Your task to perform on an android device: Show me popular videos on Youtube Image 0: 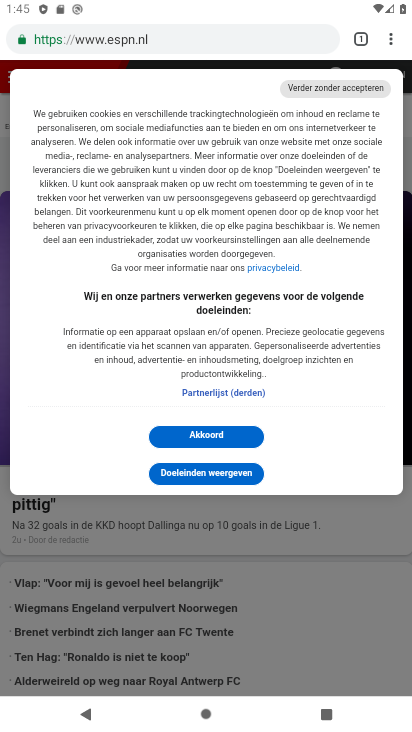
Step 0: press home button
Your task to perform on an android device: Show me popular videos on Youtube Image 1: 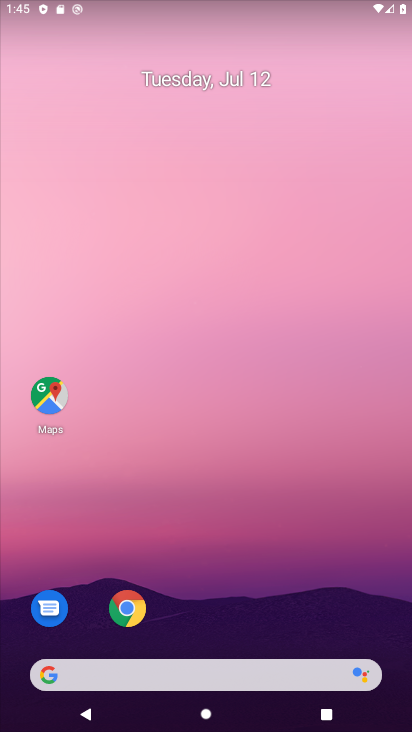
Step 1: drag from (297, 566) to (236, 106)
Your task to perform on an android device: Show me popular videos on Youtube Image 2: 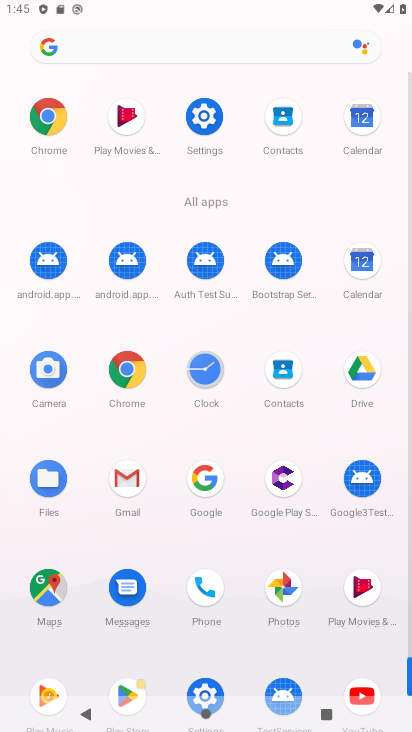
Step 2: click (366, 686)
Your task to perform on an android device: Show me popular videos on Youtube Image 3: 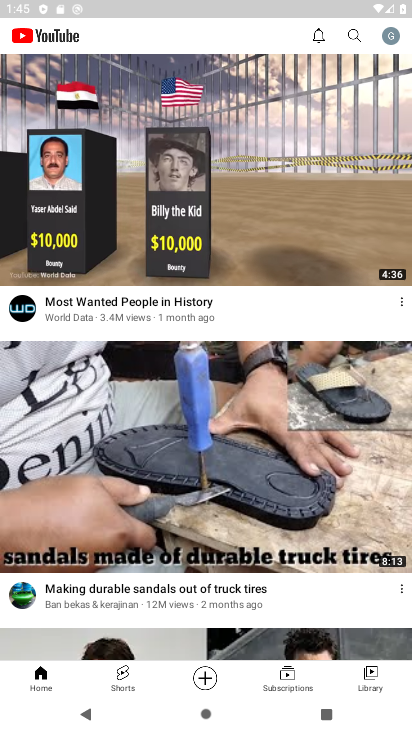
Step 3: click (288, 683)
Your task to perform on an android device: Show me popular videos on Youtube Image 4: 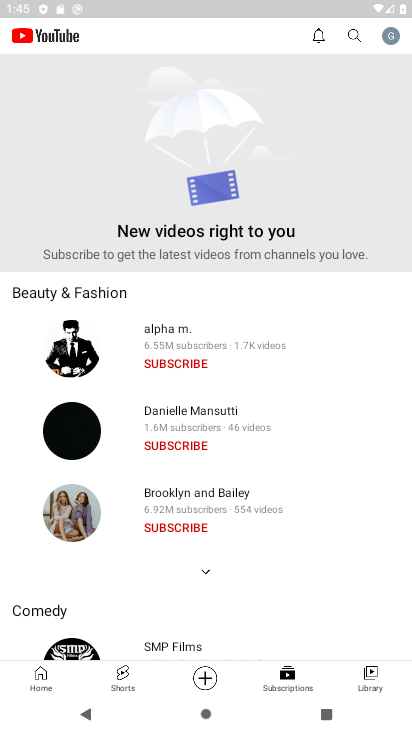
Step 4: click (359, 686)
Your task to perform on an android device: Show me popular videos on Youtube Image 5: 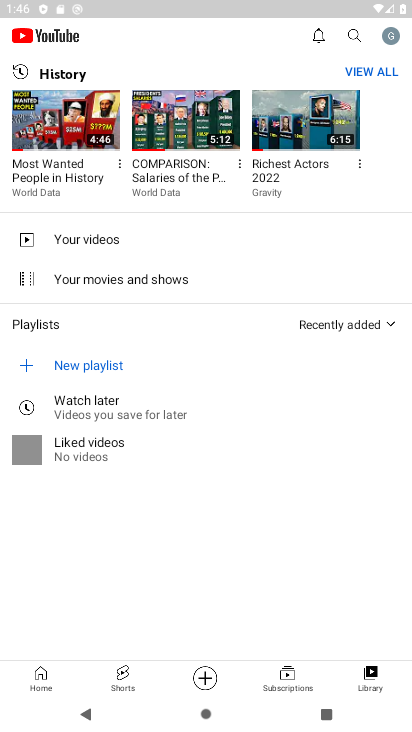
Step 5: click (138, 688)
Your task to perform on an android device: Show me popular videos on Youtube Image 6: 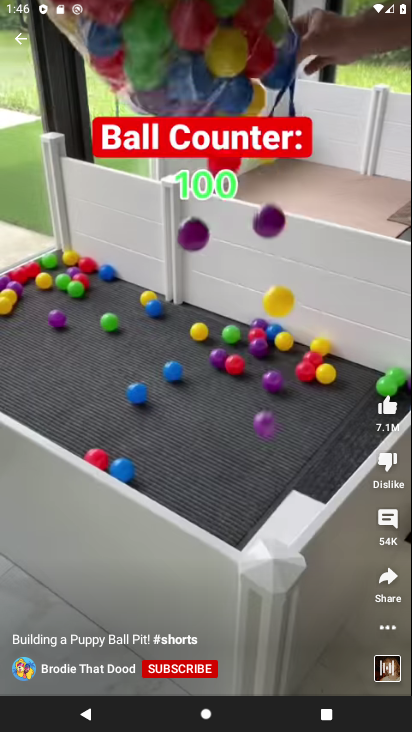
Step 6: click (88, 707)
Your task to perform on an android device: Show me popular videos on Youtube Image 7: 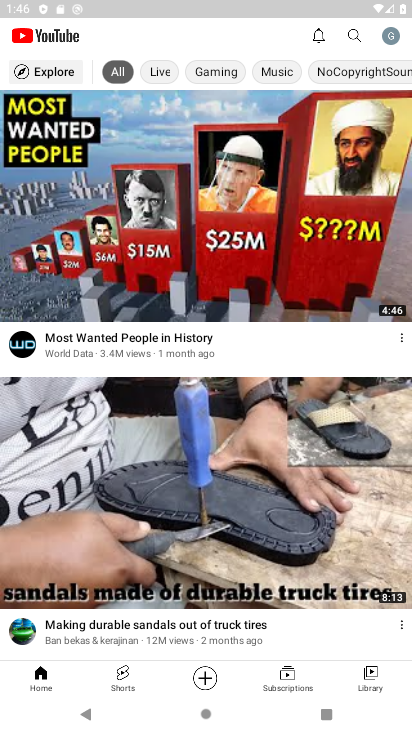
Step 7: drag from (318, 68) to (102, 68)
Your task to perform on an android device: Show me popular videos on Youtube Image 8: 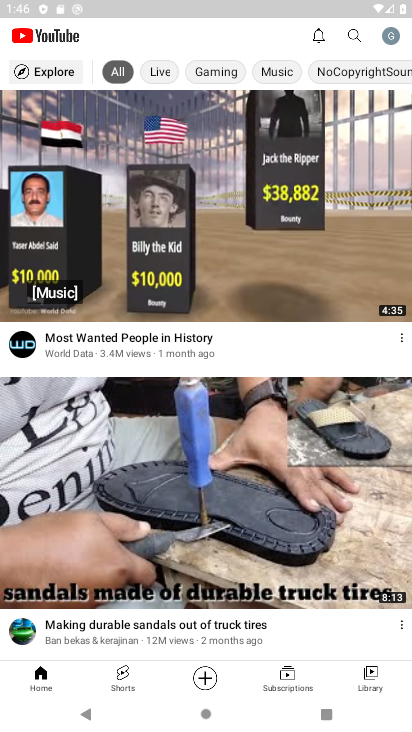
Step 8: drag from (323, 67) to (165, 73)
Your task to perform on an android device: Show me popular videos on Youtube Image 9: 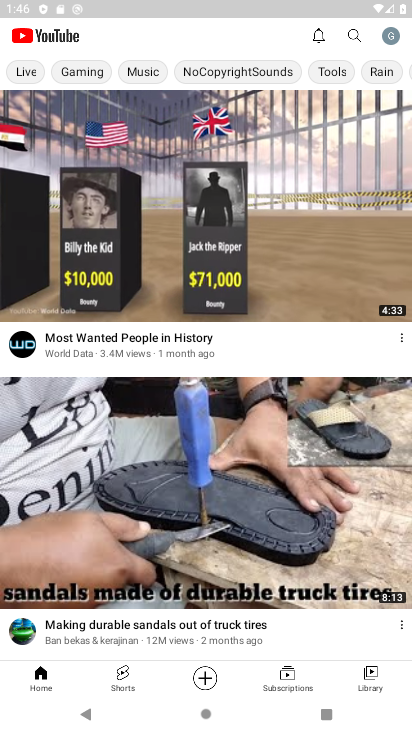
Step 9: drag from (300, 69) to (10, 72)
Your task to perform on an android device: Show me popular videos on Youtube Image 10: 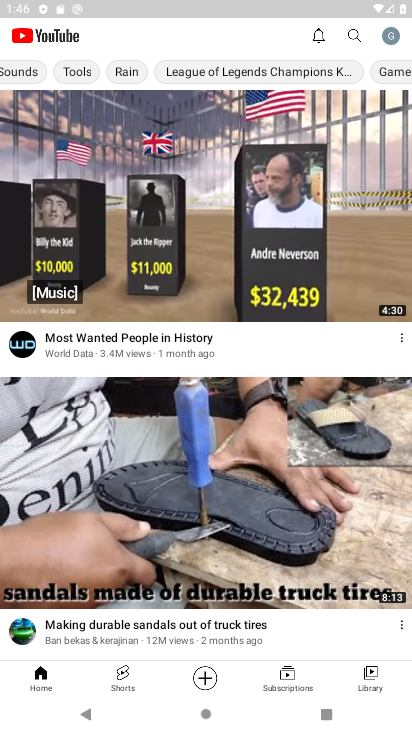
Step 10: drag from (324, 65) to (45, 72)
Your task to perform on an android device: Show me popular videos on Youtube Image 11: 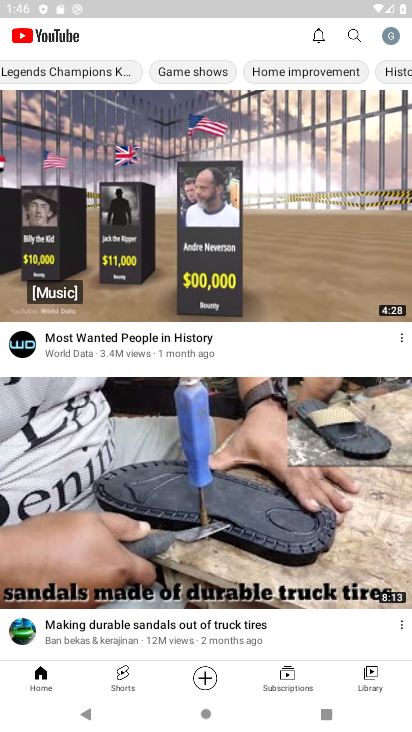
Step 11: drag from (343, 69) to (79, 75)
Your task to perform on an android device: Show me popular videos on Youtube Image 12: 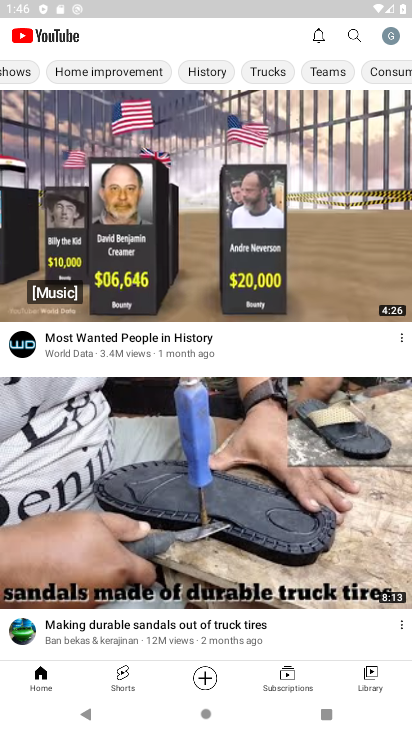
Step 12: drag from (383, 71) to (124, 79)
Your task to perform on an android device: Show me popular videos on Youtube Image 13: 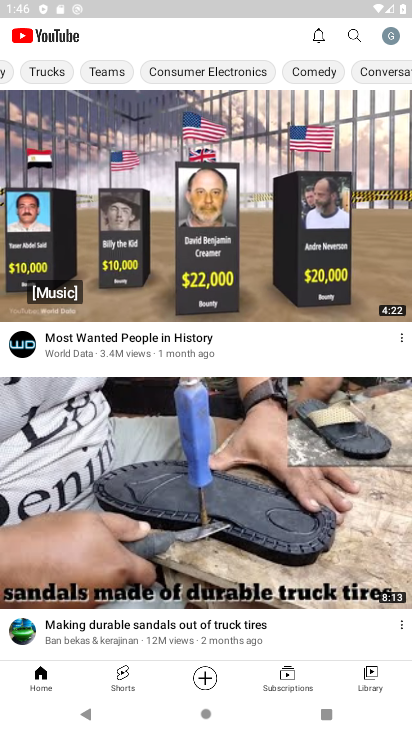
Step 13: drag from (386, 66) to (54, 70)
Your task to perform on an android device: Show me popular videos on Youtube Image 14: 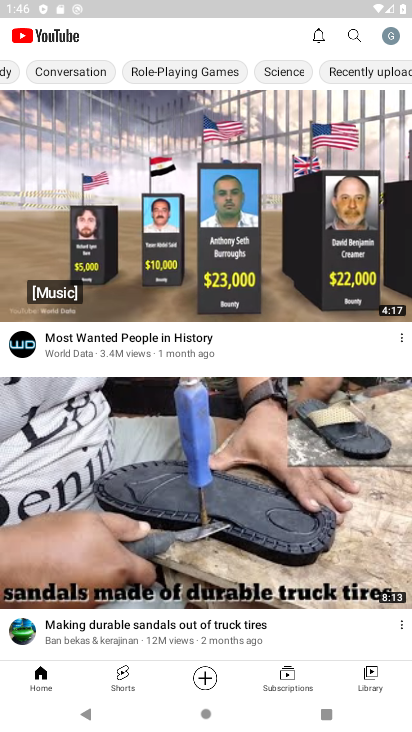
Step 14: drag from (377, 69) to (9, 73)
Your task to perform on an android device: Show me popular videos on Youtube Image 15: 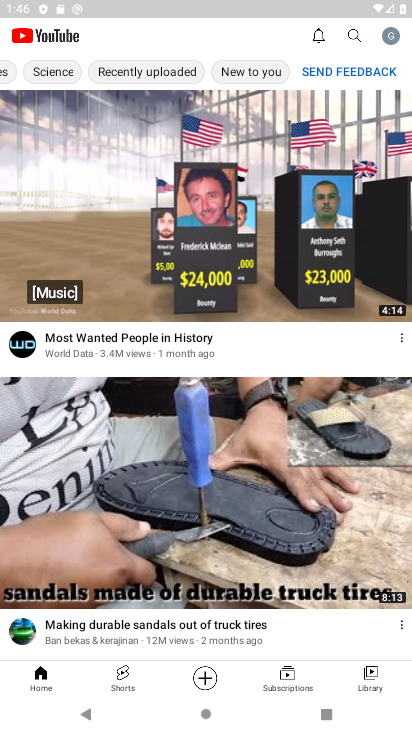
Step 15: drag from (129, 71) to (406, 96)
Your task to perform on an android device: Show me popular videos on Youtube Image 16: 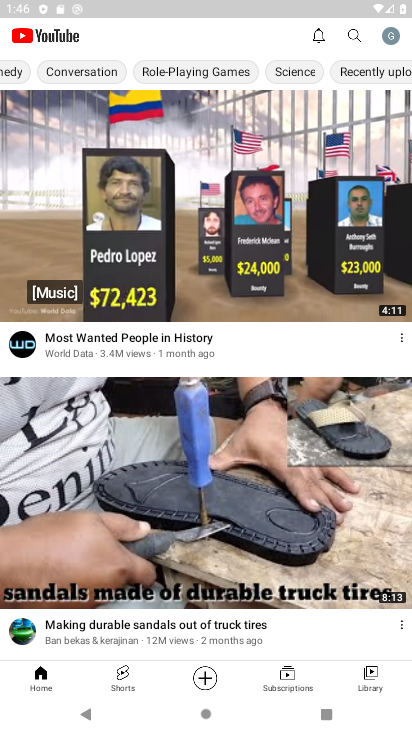
Step 16: drag from (64, 70) to (405, 78)
Your task to perform on an android device: Show me popular videos on Youtube Image 17: 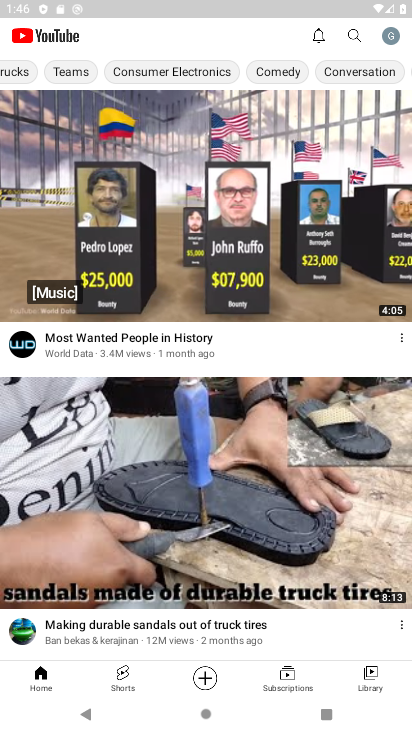
Step 17: drag from (36, 67) to (407, 91)
Your task to perform on an android device: Show me popular videos on Youtube Image 18: 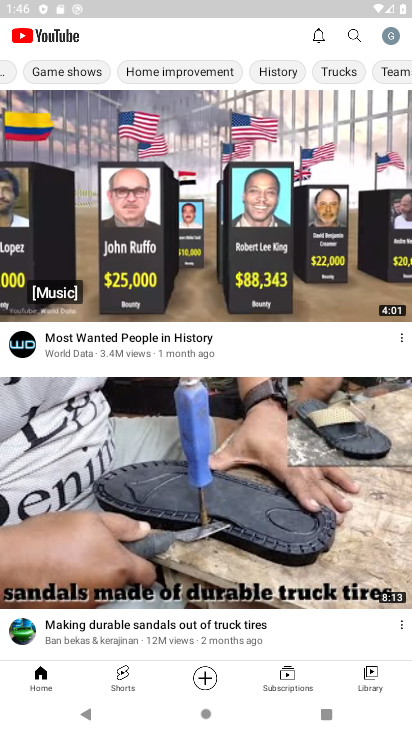
Step 18: drag from (24, 72) to (411, 90)
Your task to perform on an android device: Show me popular videos on Youtube Image 19: 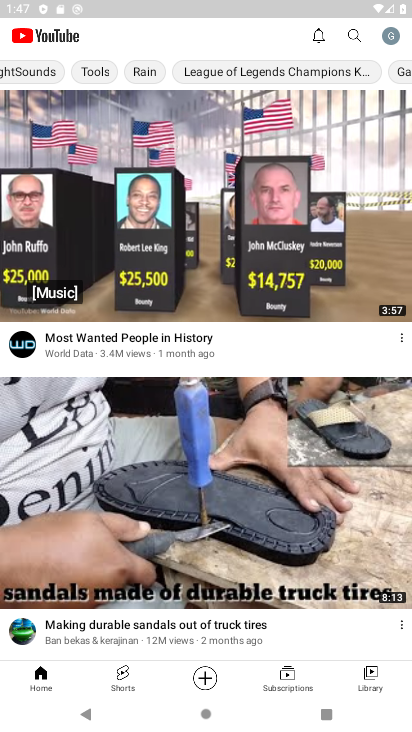
Step 19: drag from (53, 68) to (408, 99)
Your task to perform on an android device: Show me popular videos on Youtube Image 20: 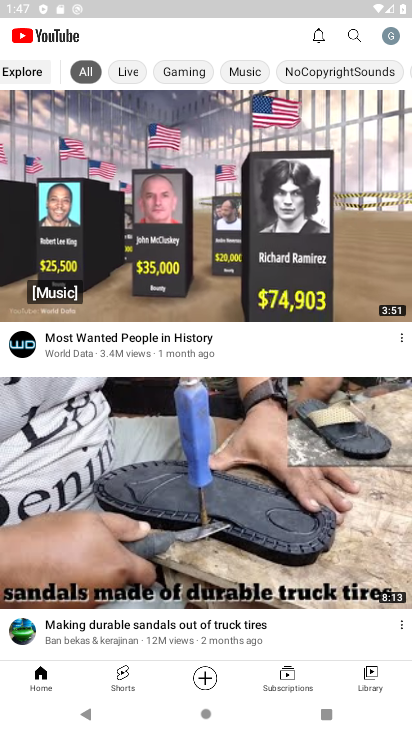
Step 20: drag from (75, 78) to (338, 73)
Your task to perform on an android device: Show me popular videos on Youtube Image 21: 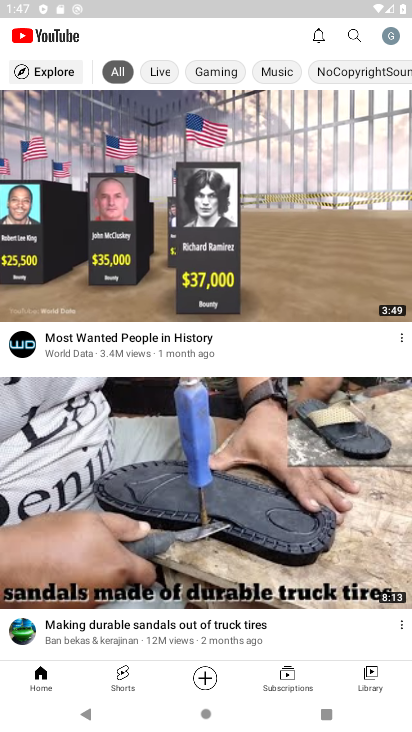
Step 21: click (19, 81)
Your task to perform on an android device: Show me popular videos on Youtube Image 22: 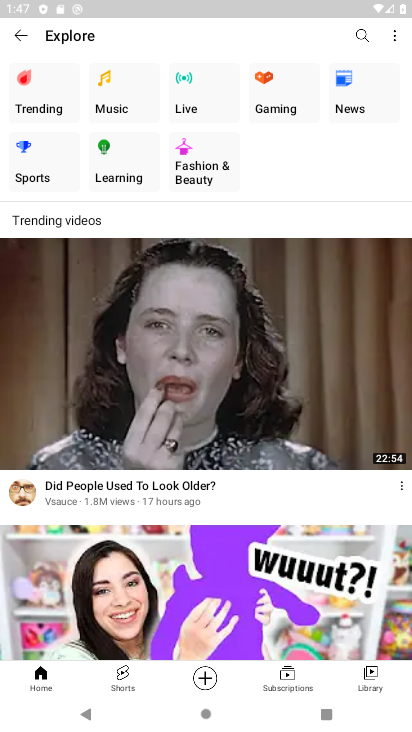
Step 22: drag from (291, 492) to (340, 60)
Your task to perform on an android device: Show me popular videos on Youtube Image 23: 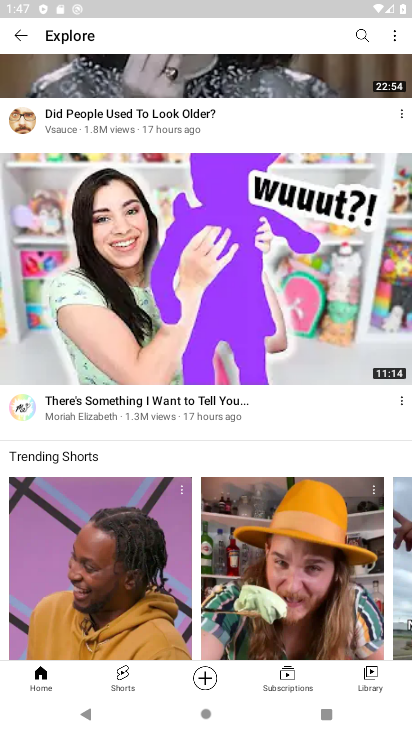
Step 23: drag from (215, 461) to (290, 46)
Your task to perform on an android device: Show me popular videos on Youtube Image 24: 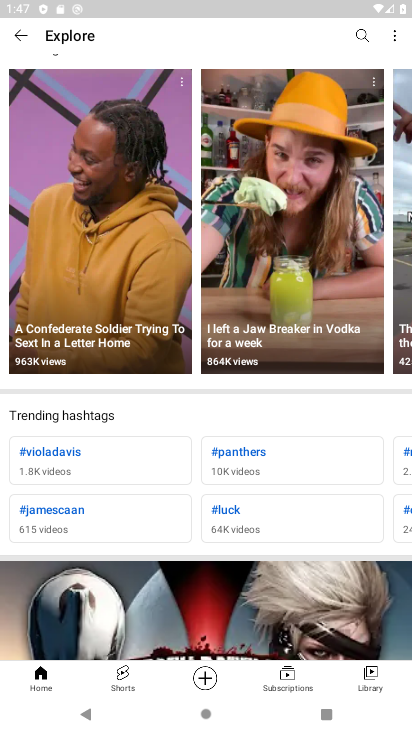
Step 24: drag from (156, 567) to (234, 87)
Your task to perform on an android device: Show me popular videos on Youtube Image 25: 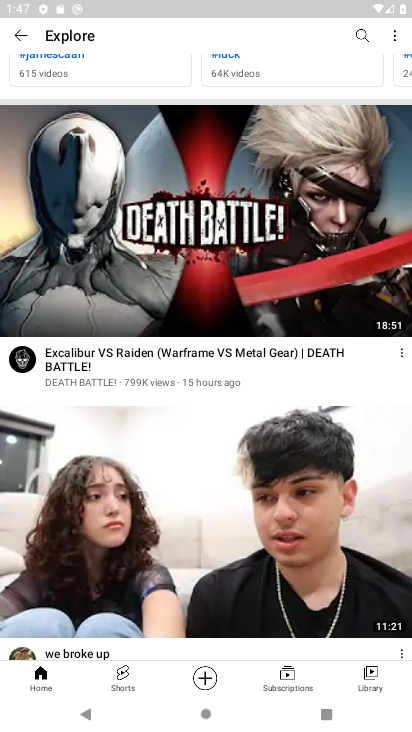
Step 25: drag from (298, 605) to (240, 726)
Your task to perform on an android device: Show me popular videos on Youtube Image 26: 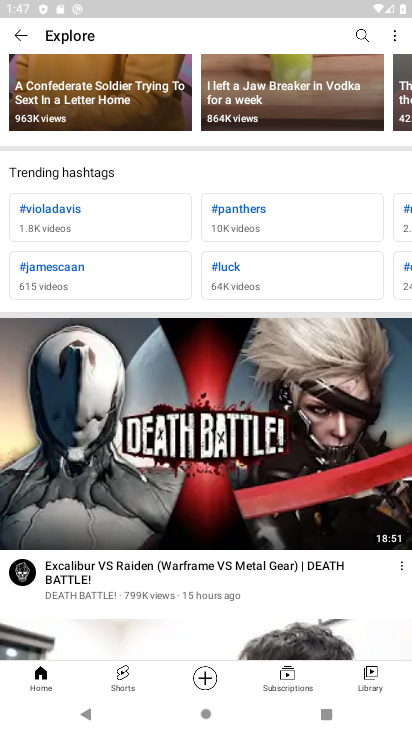
Step 26: drag from (154, 195) to (164, 656)
Your task to perform on an android device: Show me popular videos on Youtube Image 27: 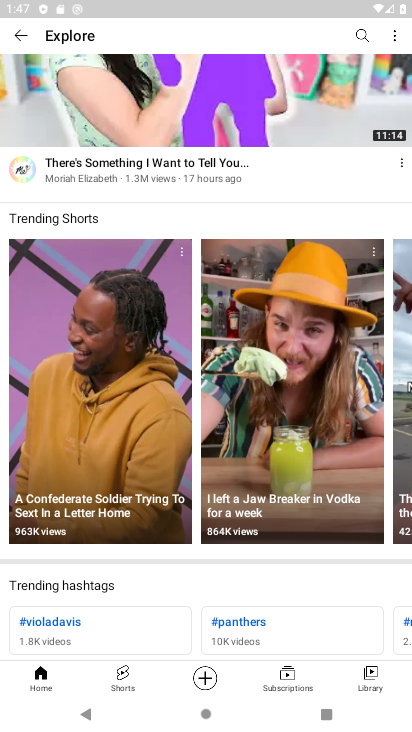
Step 27: drag from (184, 136) to (212, 612)
Your task to perform on an android device: Show me popular videos on Youtube Image 28: 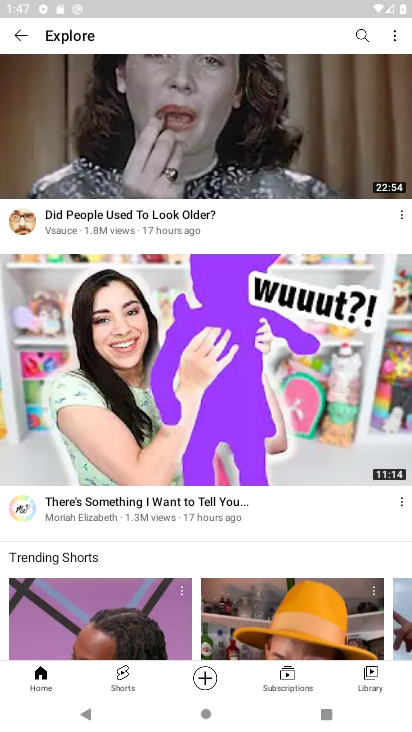
Step 28: drag from (183, 156) to (197, 639)
Your task to perform on an android device: Show me popular videos on Youtube Image 29: 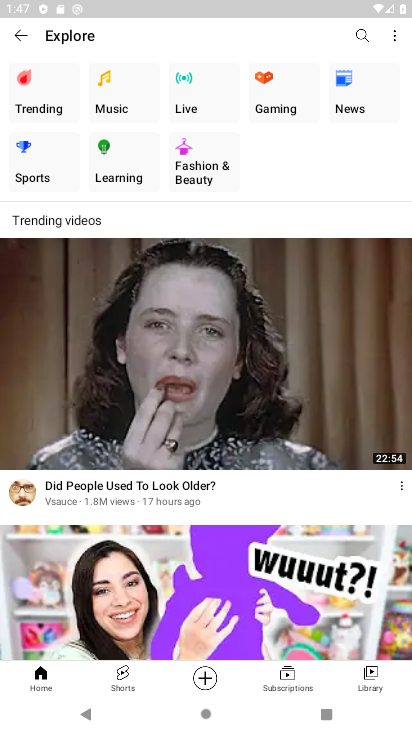
Step 29: click (56, 108)
Your task to perform on an android device: Show me popular videos on Youtube Image 30: 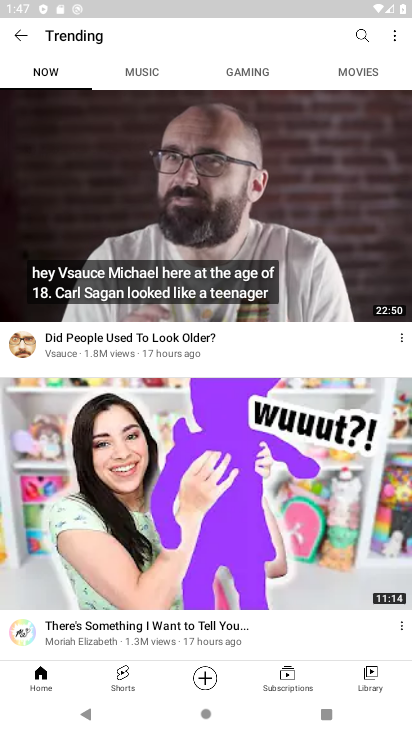
Step 30: task complete